Your task to perform on an android device: turn off location Image 0: 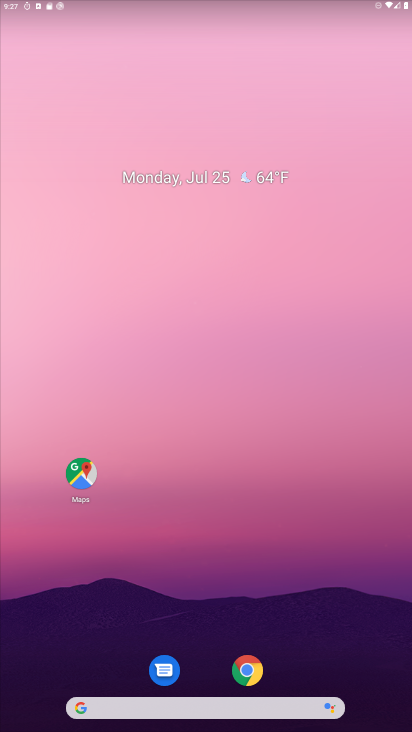
Step 0: drag from (357, 645) to (166, 28)
Your task to perform on an android device: turn off location Image 1: 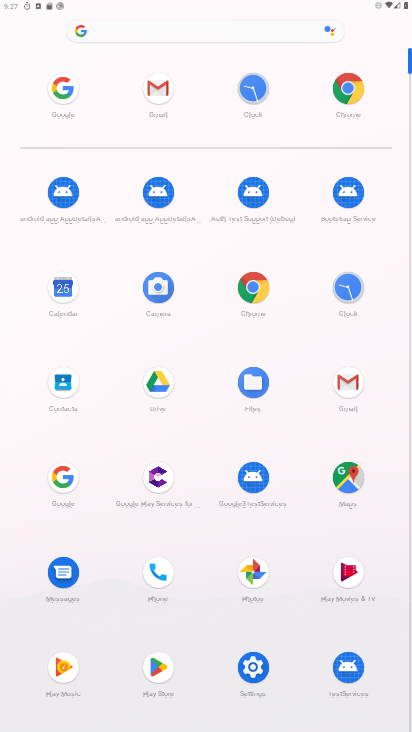
Step 1: click (246, 680)
Your task to perform on an android device: turn off location Image 2: 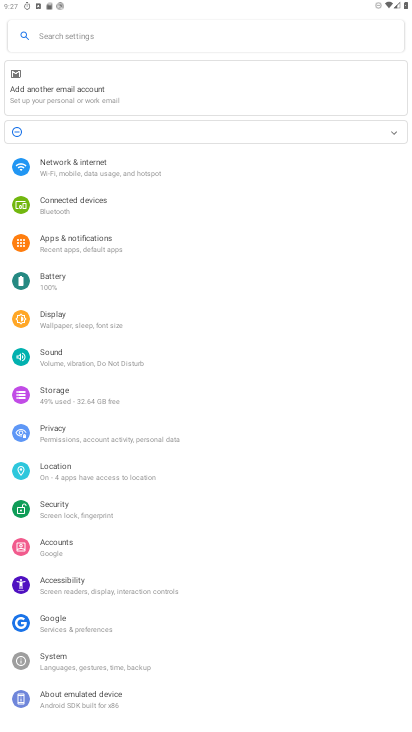
Step 2: click (68, 464)
Your task to perform on an android device: turn off location Image 3: 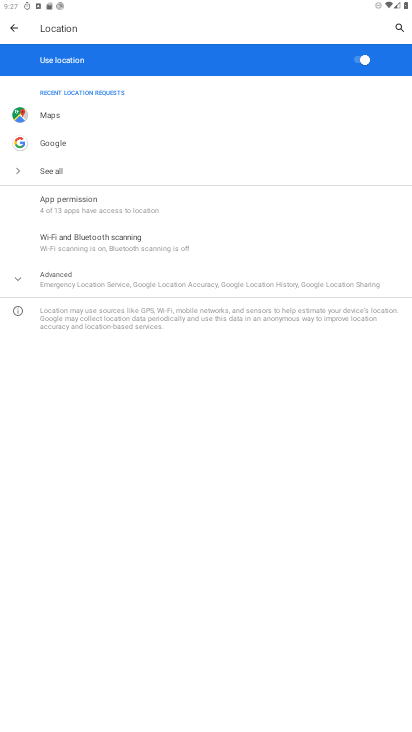
Step 3: click (59, 277)
Your task to perform on an android device: turn off location Image 4: 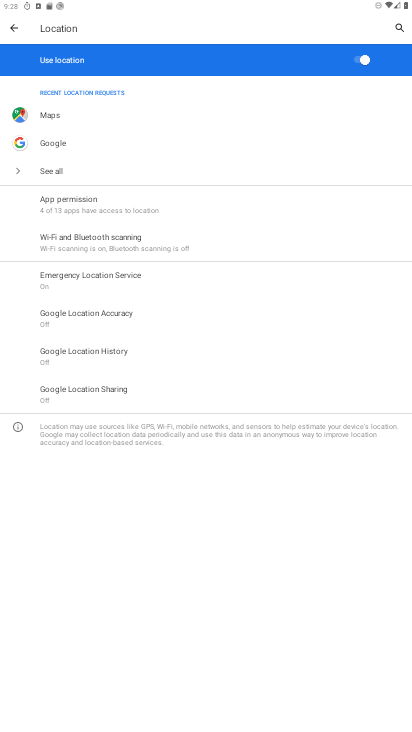
Step 4: click (364, 61)
Your task to perform on an android device: turn off location Image 5: 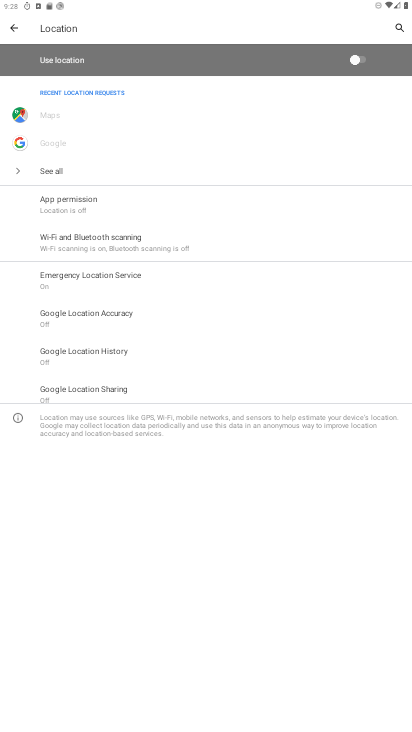
Step 5: task complete